Your task to perform on an android device: Set the phone to "Do not disturb". Image 0: 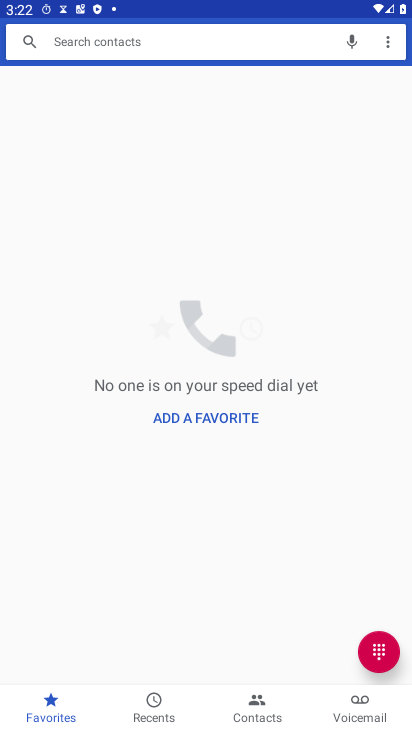
Step 0: press home button
Your task to perform on an android device: Set the phone to "Do not disturb". Image 1: 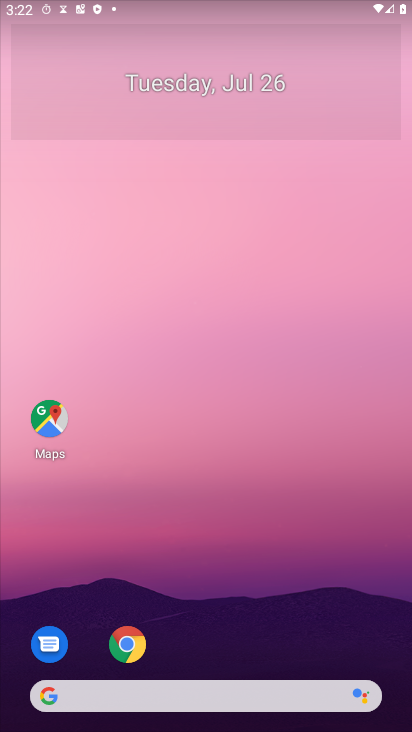
Step 1: drag from (229, 3) to (224, 210)
Your task to perform on an android device: Set the phone to "Do not disturb". Image 2: 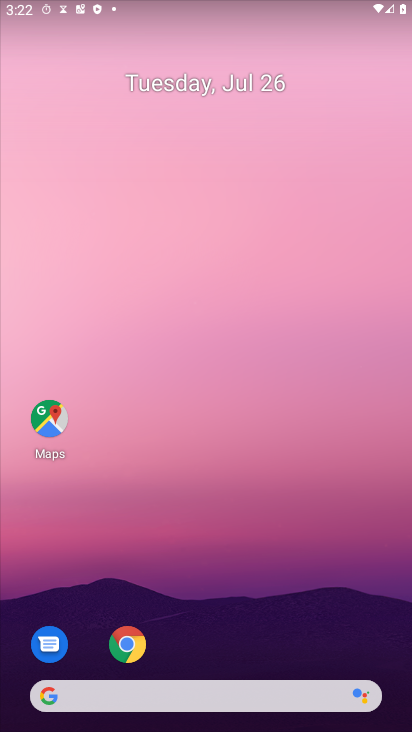
Step 2: drag from (96, 94) to (177, 312)
Your task to perform on an android device: Set the phone to "Do not disturb". Image 3: 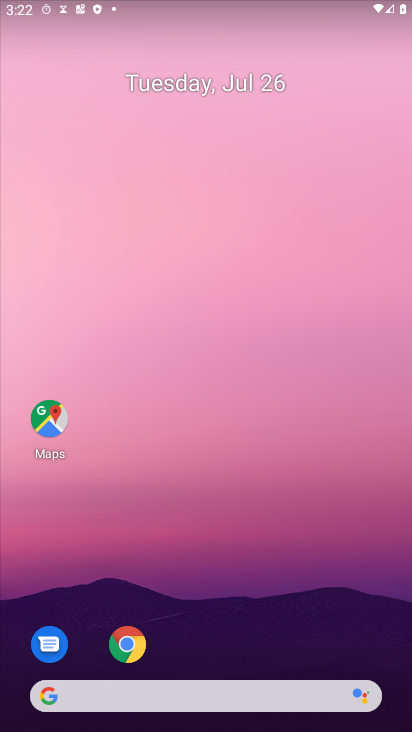
Step 3: drag from (222, 4) to (228, 367)
Your task to perform on an android device: Set the phone to "Do not disturb". Image 4: 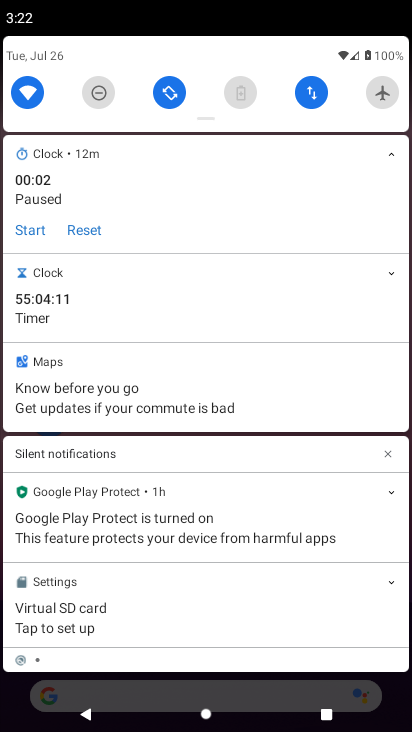
Step 4: click (104, 92)
Your task to perform on an android device: Set the phone to "Do not disturb". Image 5: 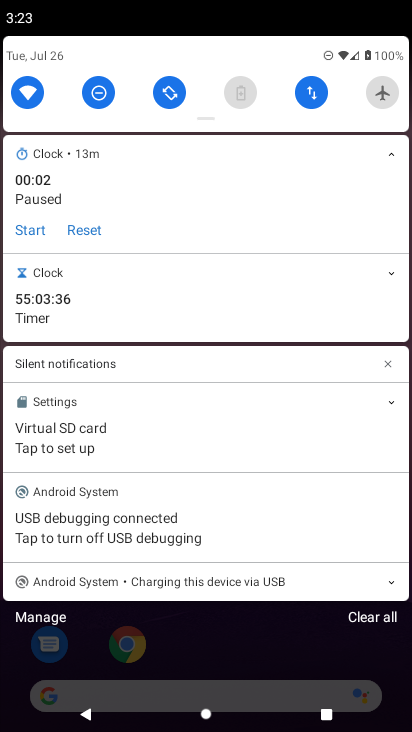
Step 5: task complete